Your task to perform on an android device: toggle show notifications on the lock screen Image 0: 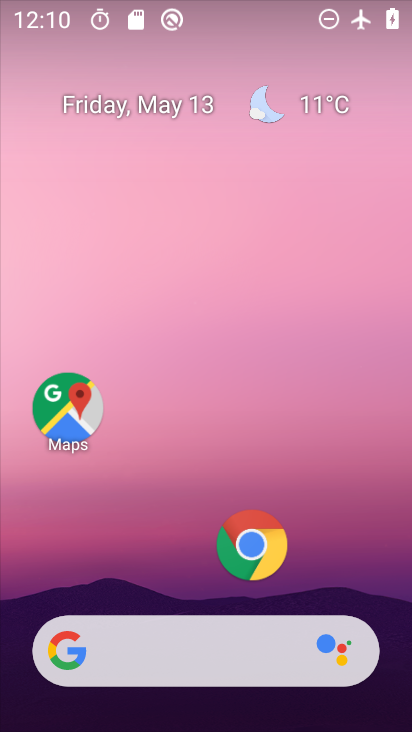
Step 0: press home button
Your task to perform on an android device: toggle show notifications on the lock screen Image 1: 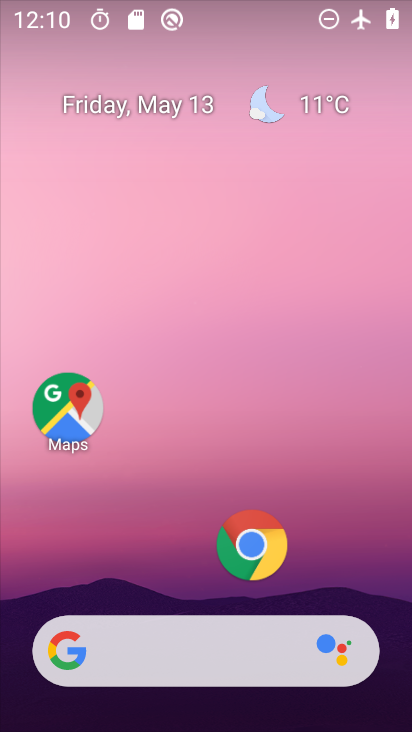
Step 1: drag from (187, 587) to (167, 8)
Your task to perform on an android device: toggle show notifications on the lock screen Image 2: 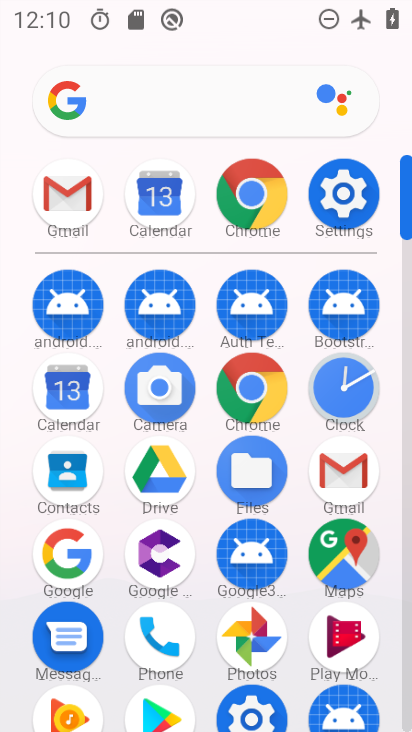
Step 2: click (338, 190)
Your task to perform on an android device: toggle show notifications on the lock screen Image 3: 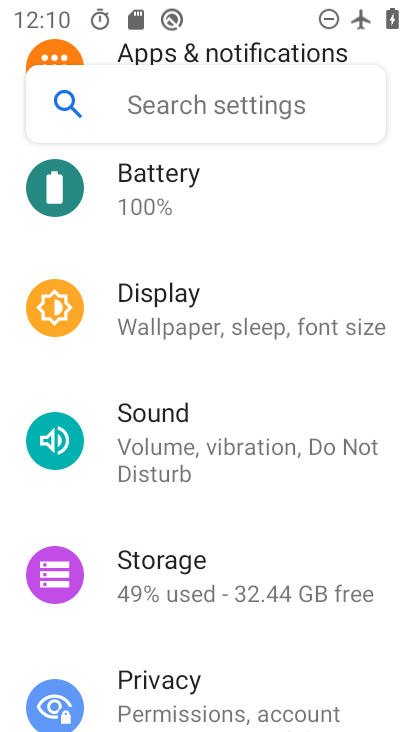
Step 3: drag from (218, 201) to (275, 650)
Your task to perform on an android device: toggle show notifications on the lock screen Image 4: 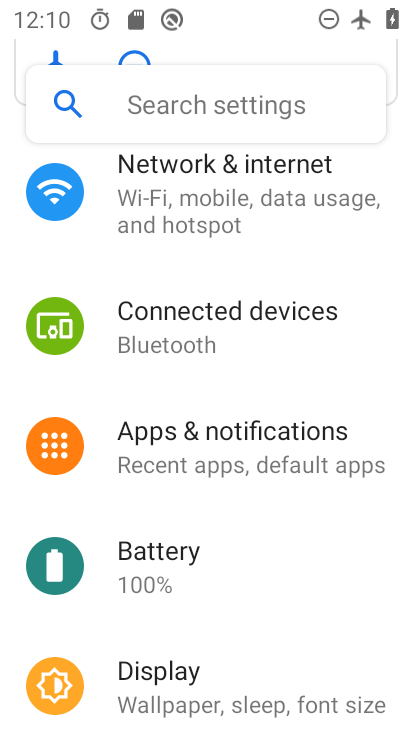
Step 4: click (161, 448)
Your task to perform on an android device: toggle show notifications on the lock screen Image 5: 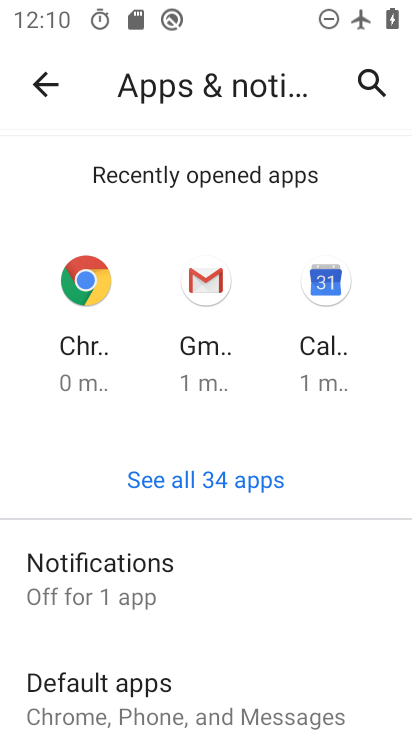
Step 5: click (212, 570)
Your task to perform on an android device: toggle show notifications on the lock screen Image 6: 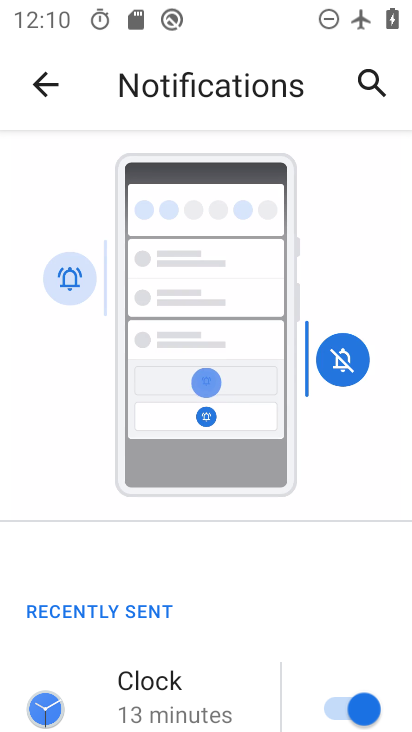
Step 6: drag from (225, 671) to (226, 179)
Your task to perform on an android device: toggle show notifications on the lock screen Image 7: 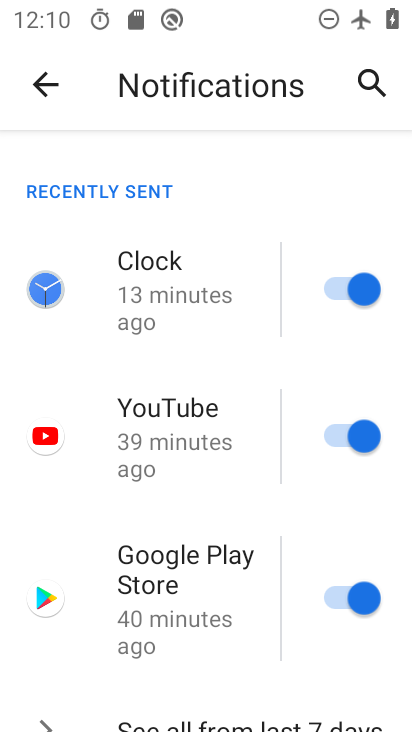
Step 7: drag from (228, 674) to (206, 132)
Your task to perform on an android device: toggle show notifications on the lock screen Image 8: 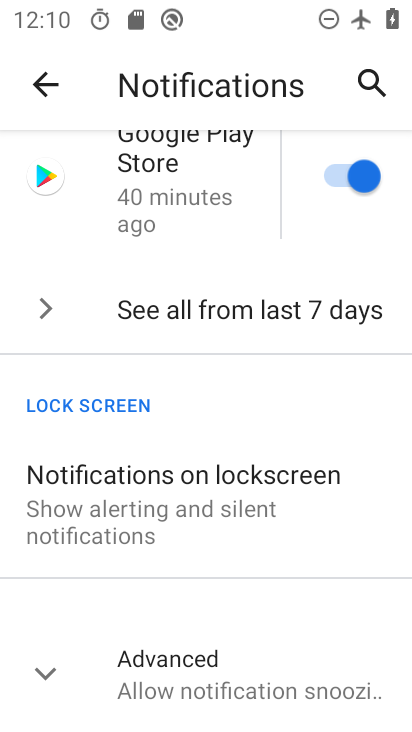
Step 8: click (302, 496)
Your task to perform on an android device: toggle show notifications on the lock screen Image 9: 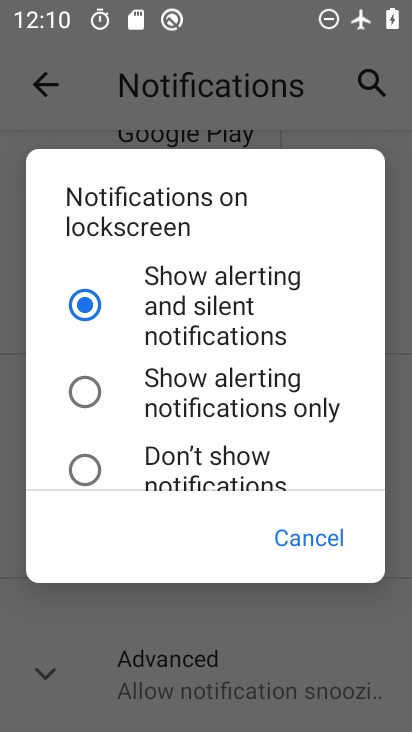
Step 9: click (77, 384)
Your task to perform on an android device: toggle show notifications on the lock screen Image 10: 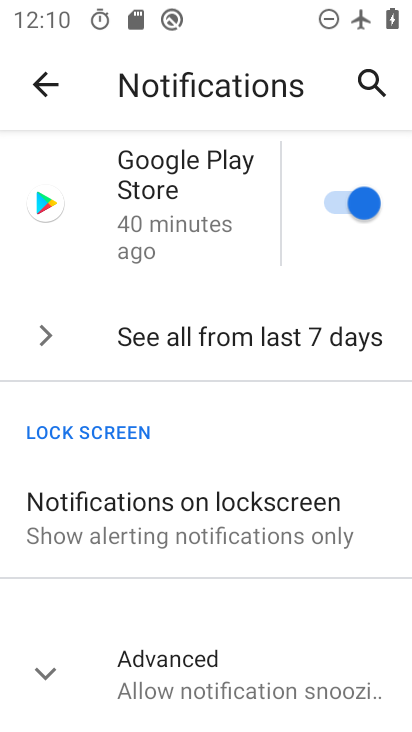
Step 10: task complete